Your task to perform on an android device: turn off priority inbox in the gmail app Image 0: 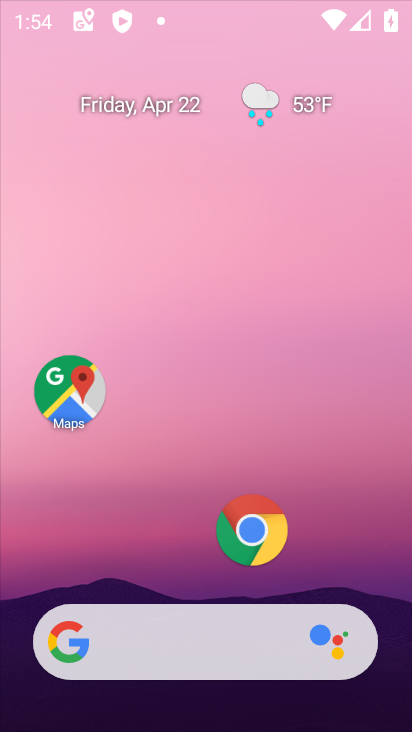
Step 0: click (76, 385)
Your task to perform on an android device: turn off priority inbox in the gmail app Image 1: 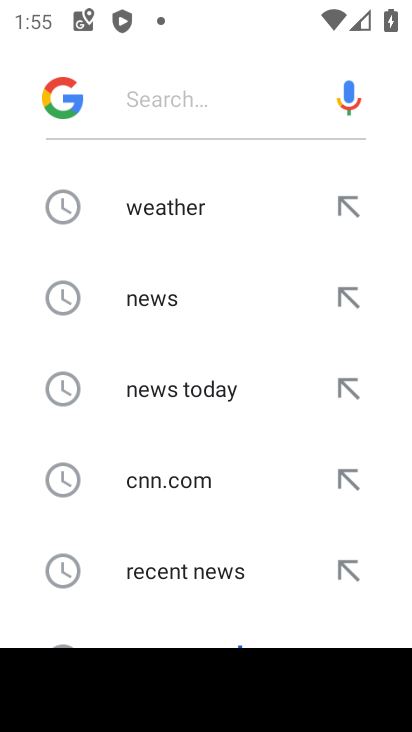
Step 1: press home button
Your task to perform on an android device: turn off priority inbox in the gmail app Image 2: 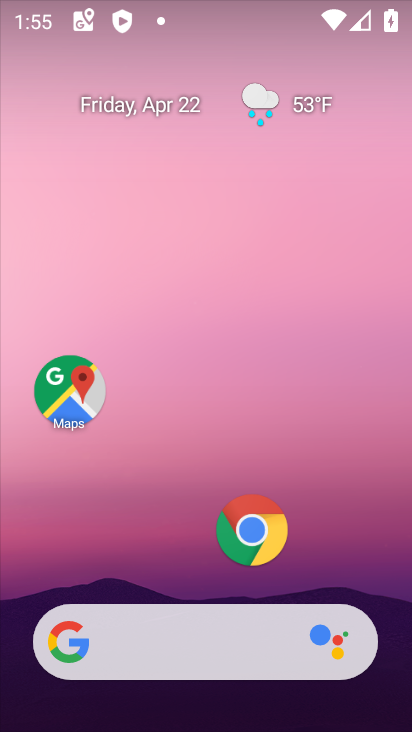
Step 2: drag from (149, 662) to (149, 168)
Your task to perform on an android device: turn off priority inbox in the gmail app Image 3: 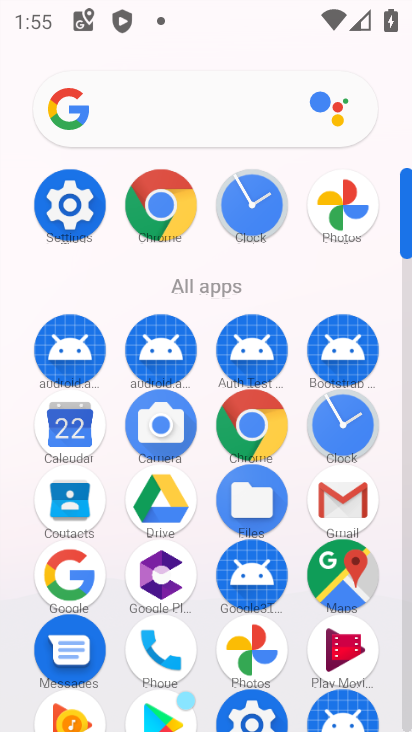
Step 3: click (348, 498)
Your task to perform on an android device: turn off priority inbox in the gmail app Image 4: 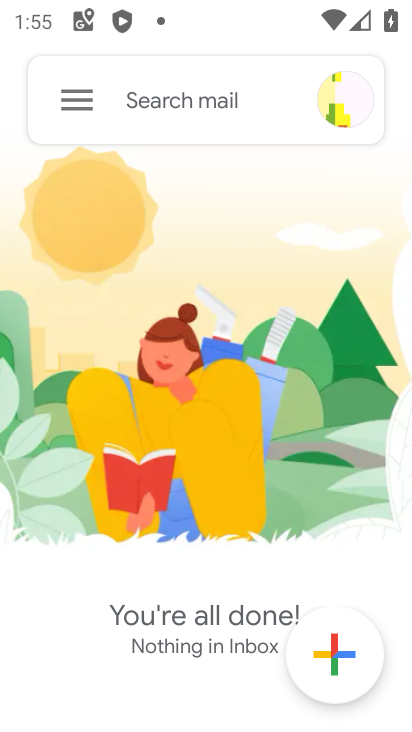
Step 4: click (91, 102)
Your task to perform on an android device: turn off priority inbox in the gmail app Image 5: 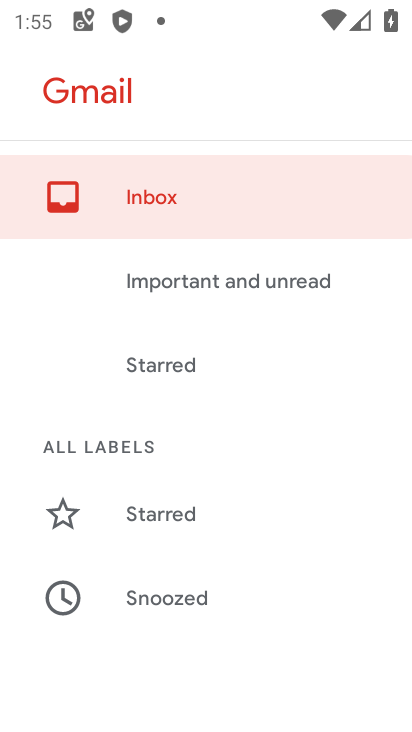
Step 5: drag from (149, 220) to (156, 92)
Your task to perform on an android device: turn off priority inbox in the gmail app Image 6: 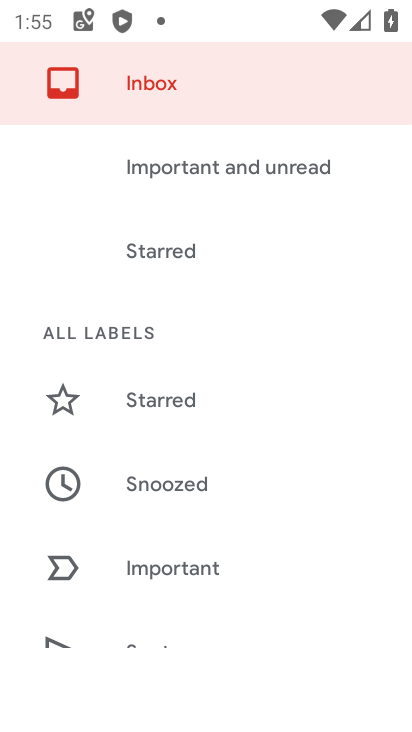
Step 6: click (156, 97)
Your task to perform on an android device: turn off priority inbox in the gmail app Image 7: 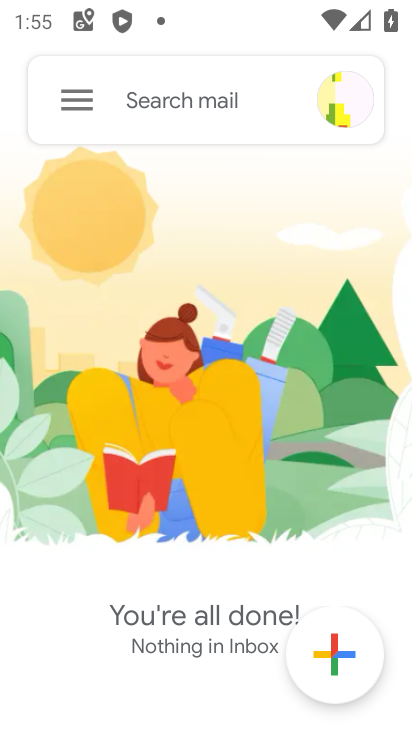
Step 7: click (77, 108)
Your task to perform on an android device: turn off priority inbox in the gmail app Image 8: 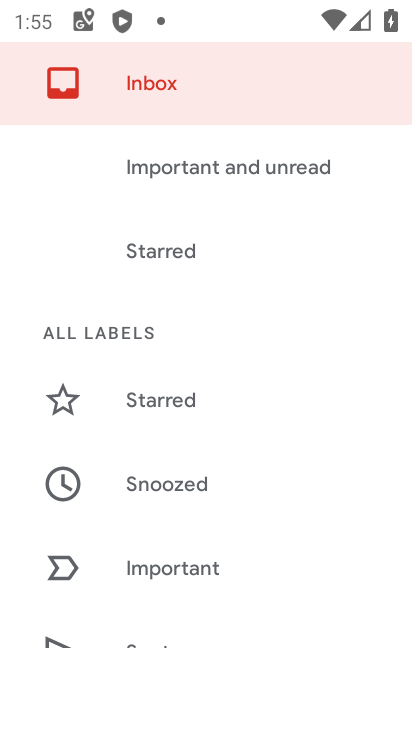
Step 8: drag from (179, 432) to (174, 61)
Your task to perform on an android device: turn off priority inbox in the gmail app Image 9: 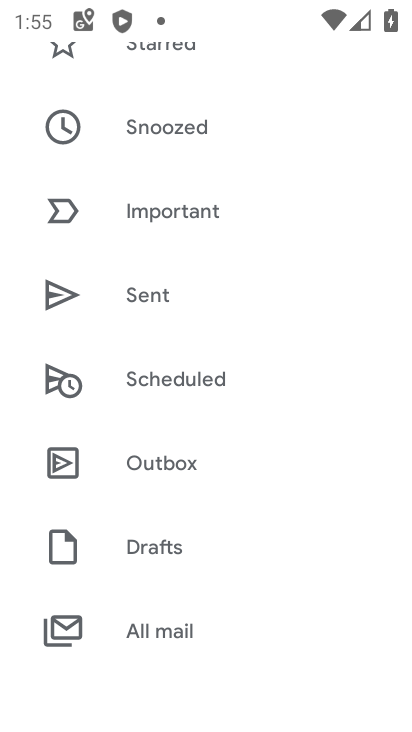
Step 9: drag from (168, 580) to (139, 145)
Your task to perform on an android device: turn off priority inbox in the gmail app Image 10: 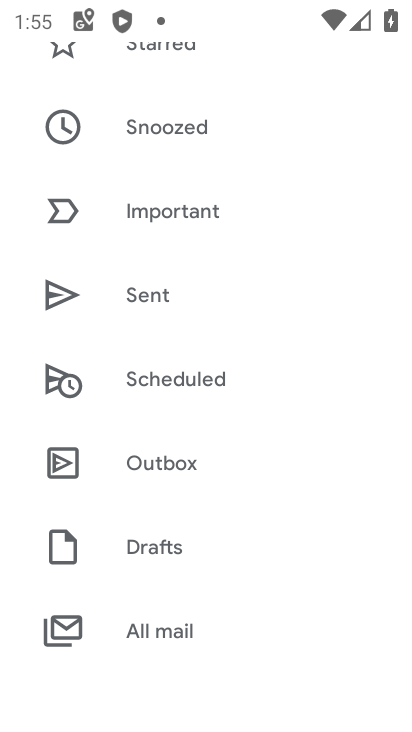
Step 10: drag from (166, 631) to (209, 83)
Your task to perform on an android device: turn off priority inbox in the gmail app Image 11: 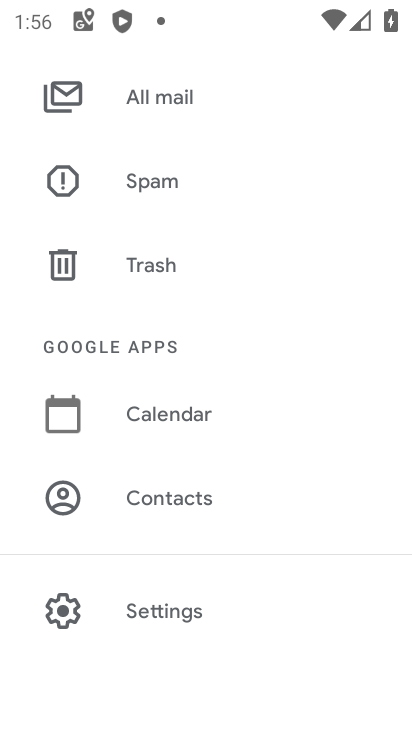
Step 11: click (169, 610)
Your task to perform on an android device: turn off priority inbox in the gmail app Image 12: 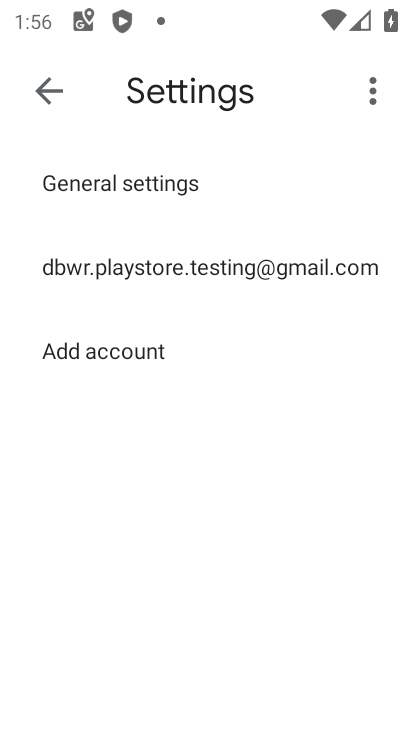
Step 12: click (205, 260)
Your task to perform on an android device: turn off priority inbox in the gmail app Image 13: 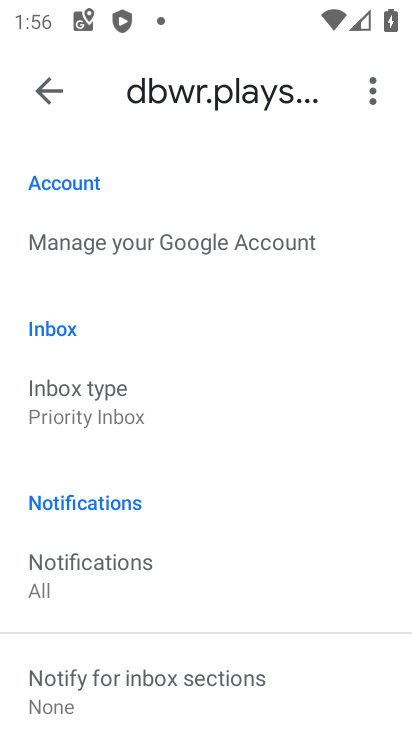
Step 13: click (264, 459)
Your task to perform on an android device: turn off priority inbox in the gmail app Image 14: 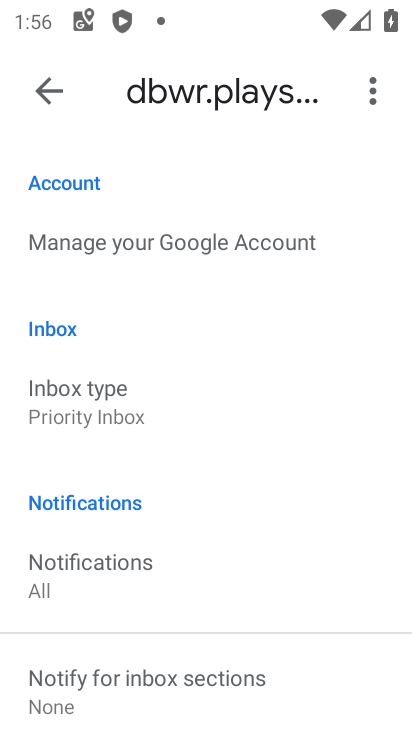
Step 14: task complete